Your task to perform on an android device: Search for corsair k70 on bestbuy, select the first entry, and add it to the cart. Image 0: 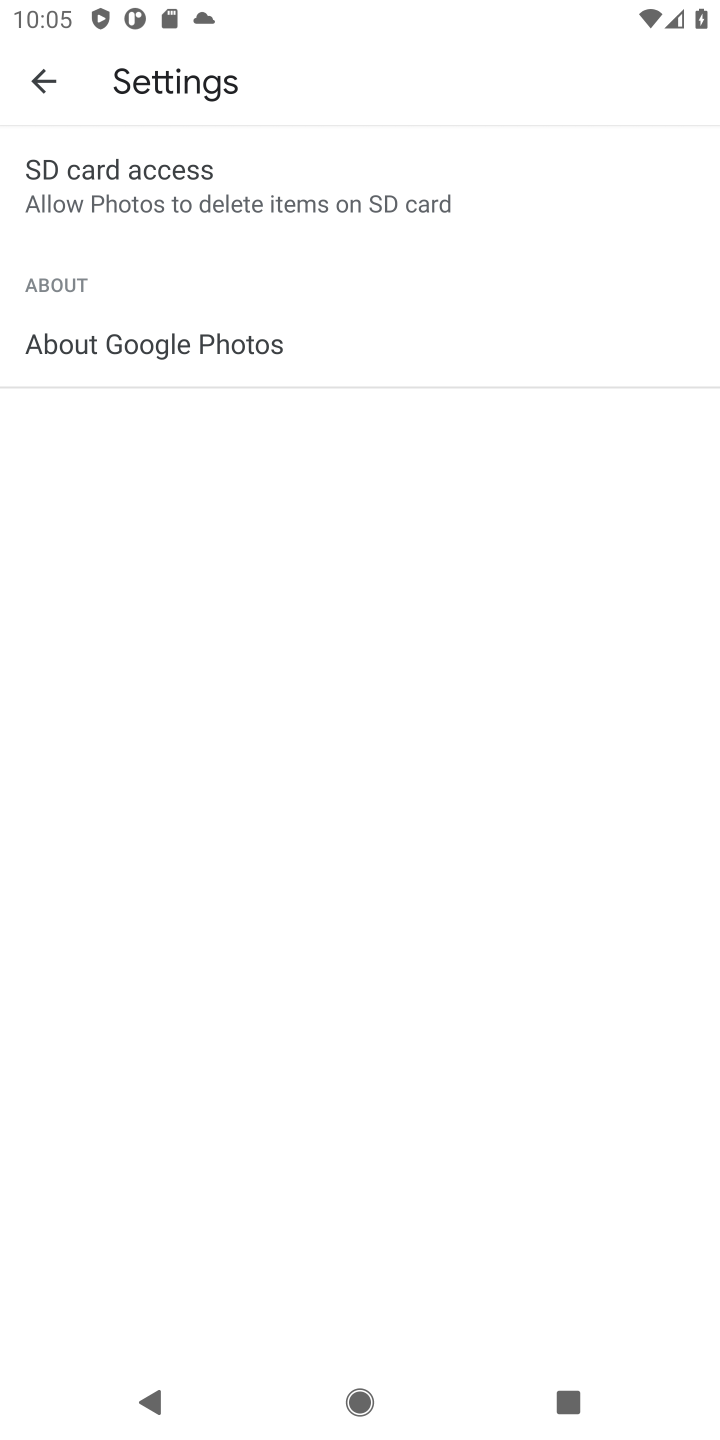
Step 0: press home button
Your task to perform on an android device: Search for corsair k70 on bestbuy, select the first entry, and add it to the cart. Image 1: 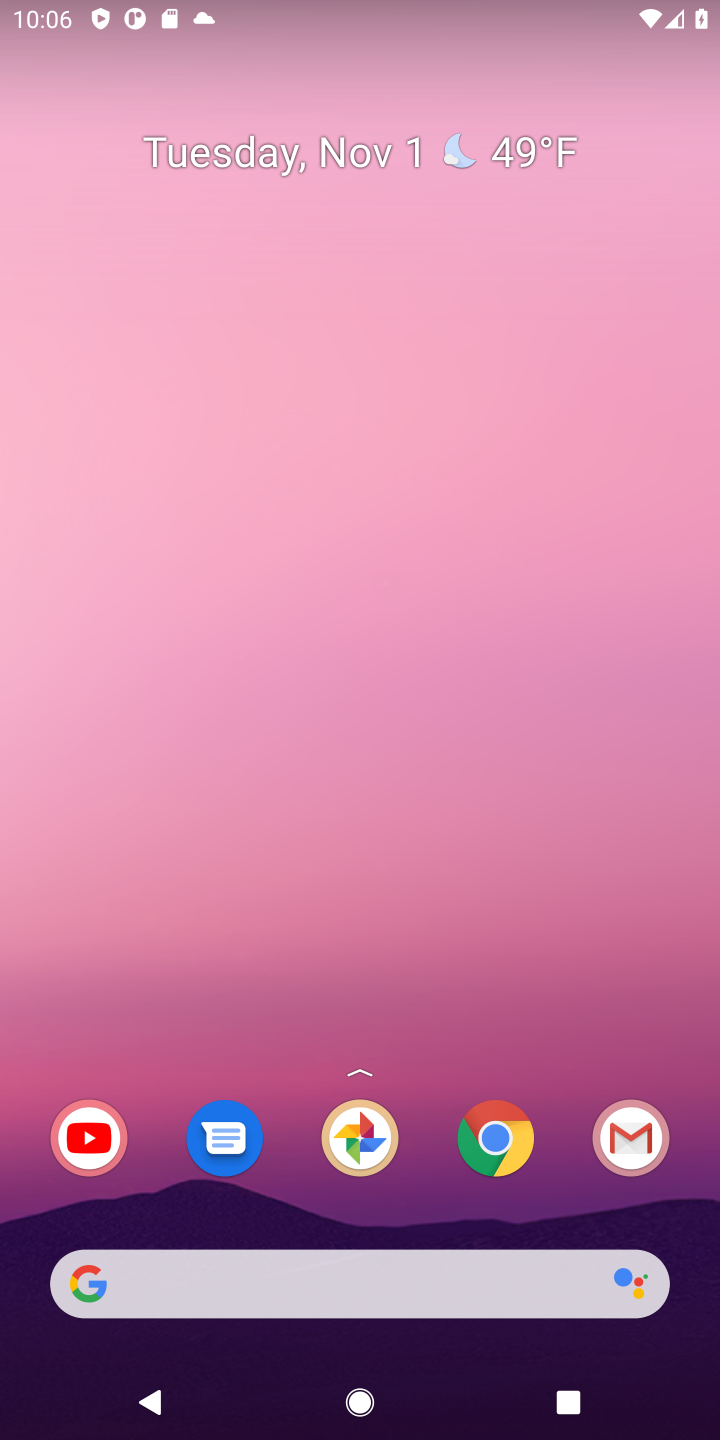
Step 1: click (497, 1137)
Your task to perform on an android device: Search for corsair k70 on bestbuy, select the first entry, and add it to the cart. Image 2: 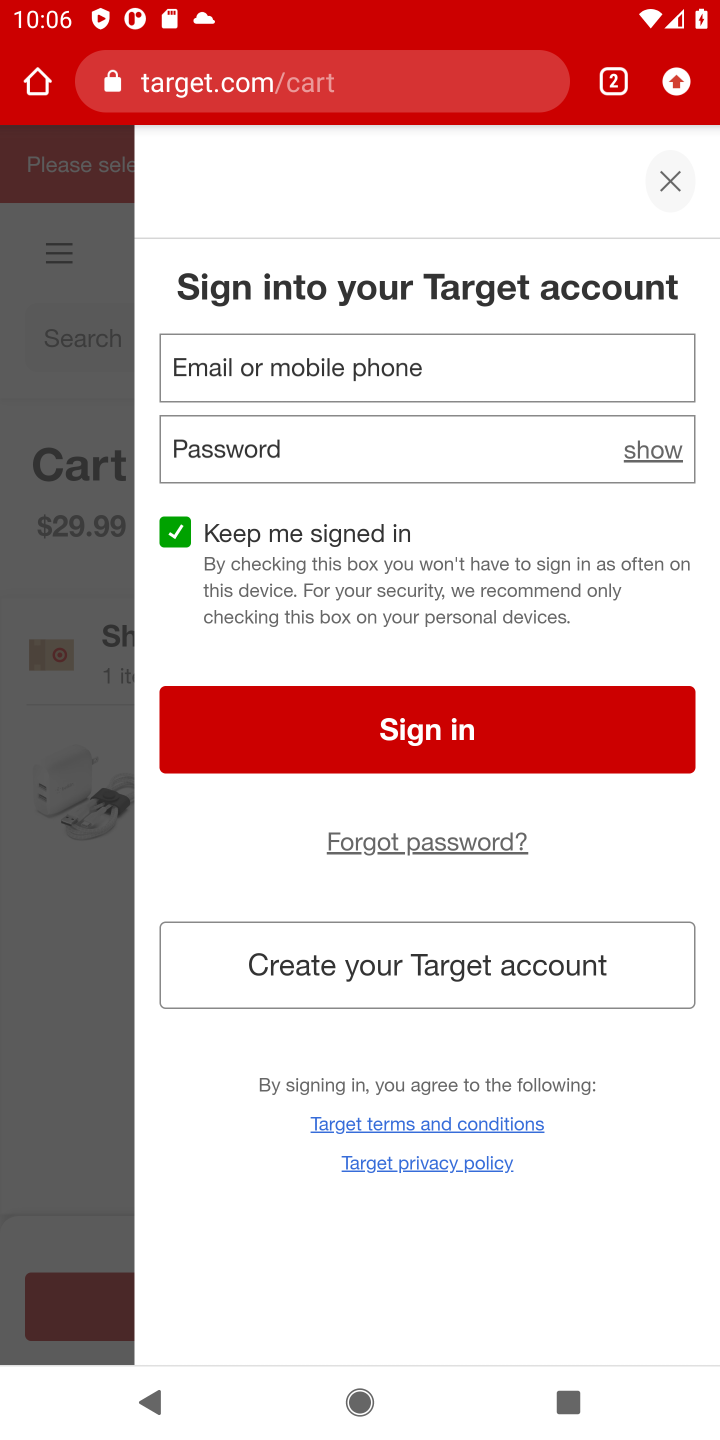
Step 2: click (349, 82)
Your task to perform on an android device: Search for corsair k70 on bestbuy, select the first entry, and add it to the cart. Image 3: 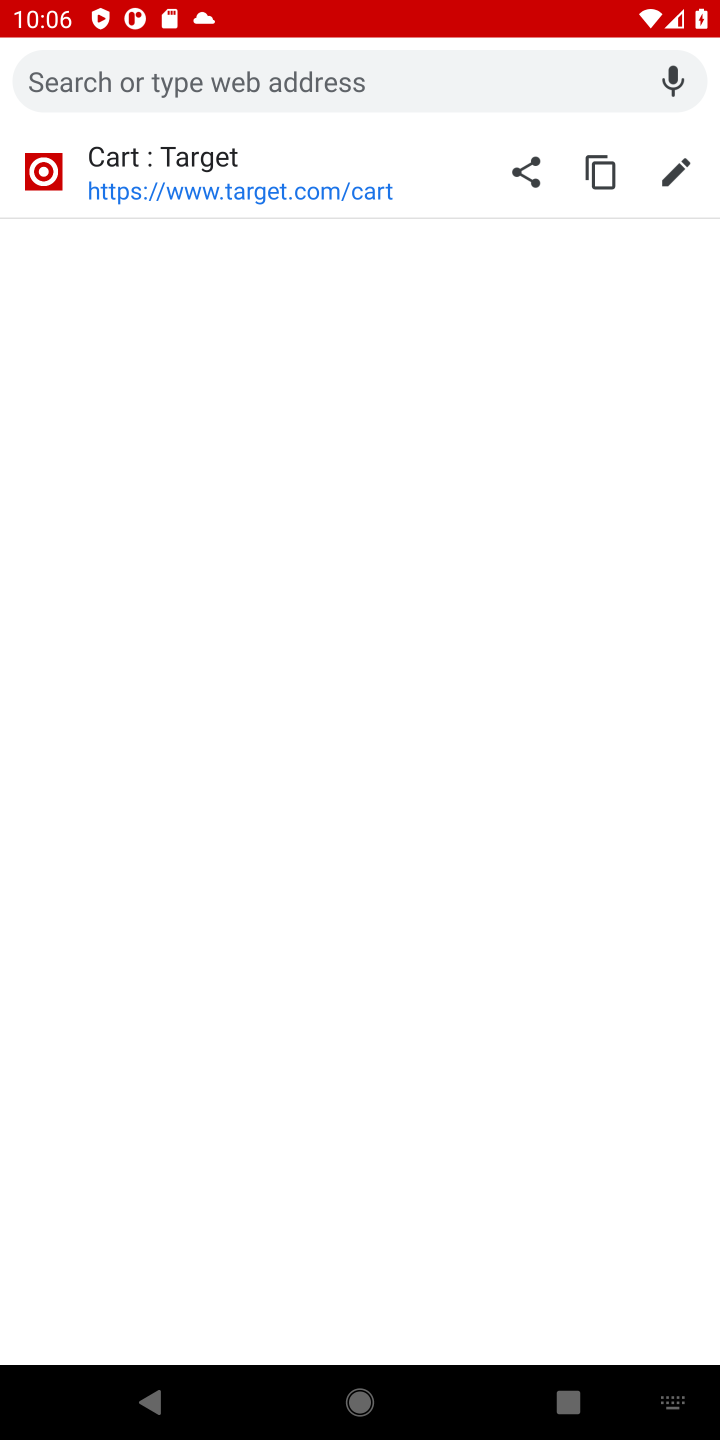
Step 3: type "bestbuy"
Your task to perform on an android device: Search for corsair k70 on bestbuy, select the first entry, and add it to the cart. Image 4: 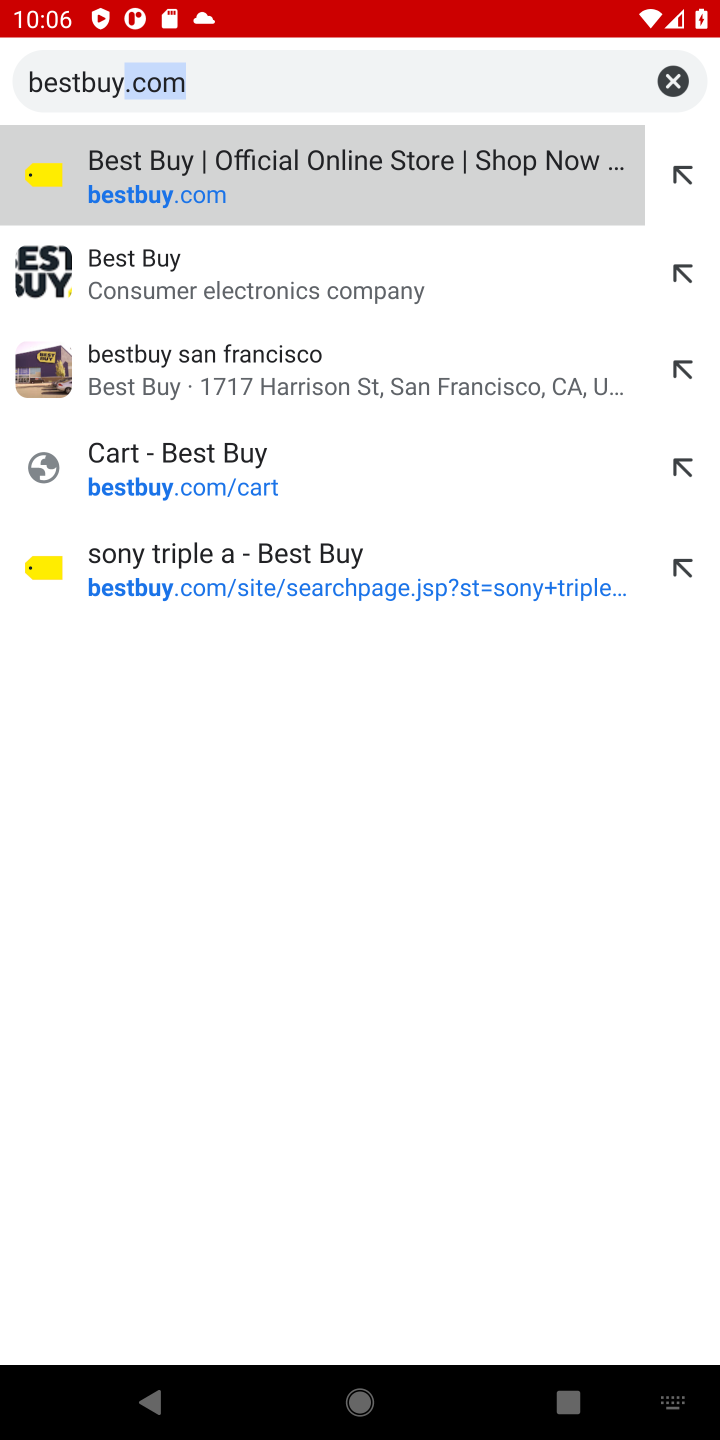
Step 4: click (360, 262)
Your task to perform on an android device: Search for corsair k70 on bestbuy, select the first entry, and add it to the cart. Image 5: 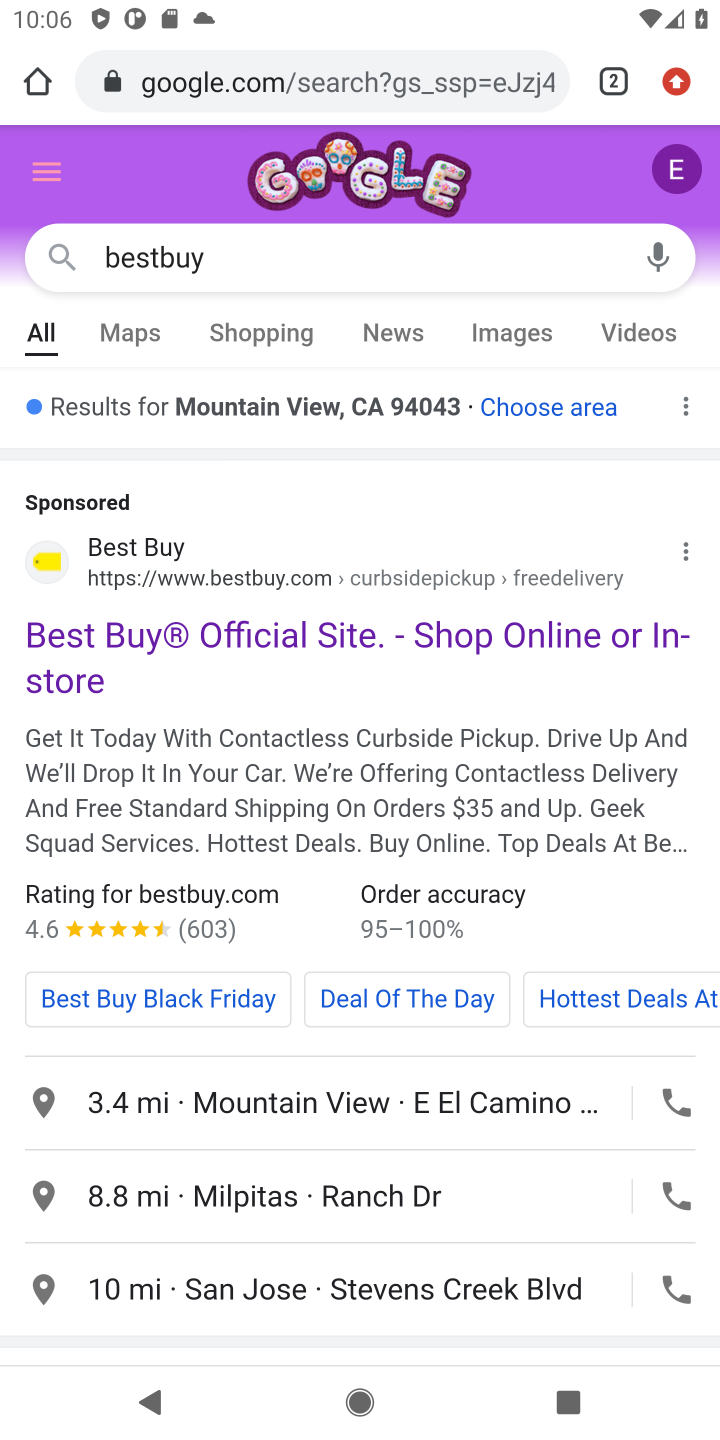
Step 5: drag from (349, 673) to (362, 282)
Your task to perform on an android device: Search for corsair k70 on bestbuy, select the first entry, and add it to the cart. Image 6: 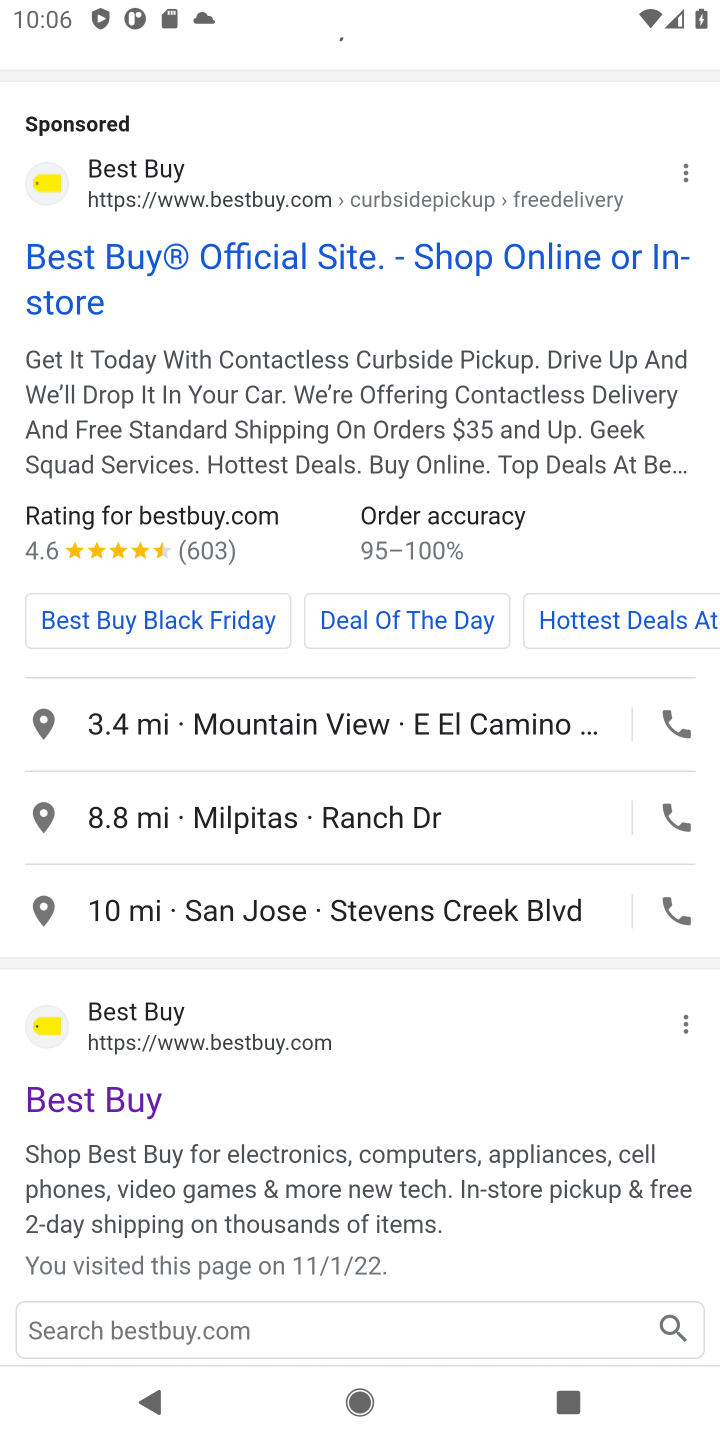
Step 6: click (237, 1098)
Your task to perform on an android device: Search for corsair k70 on bestbuy, select the first entry, and add it to the cart. Image 7: 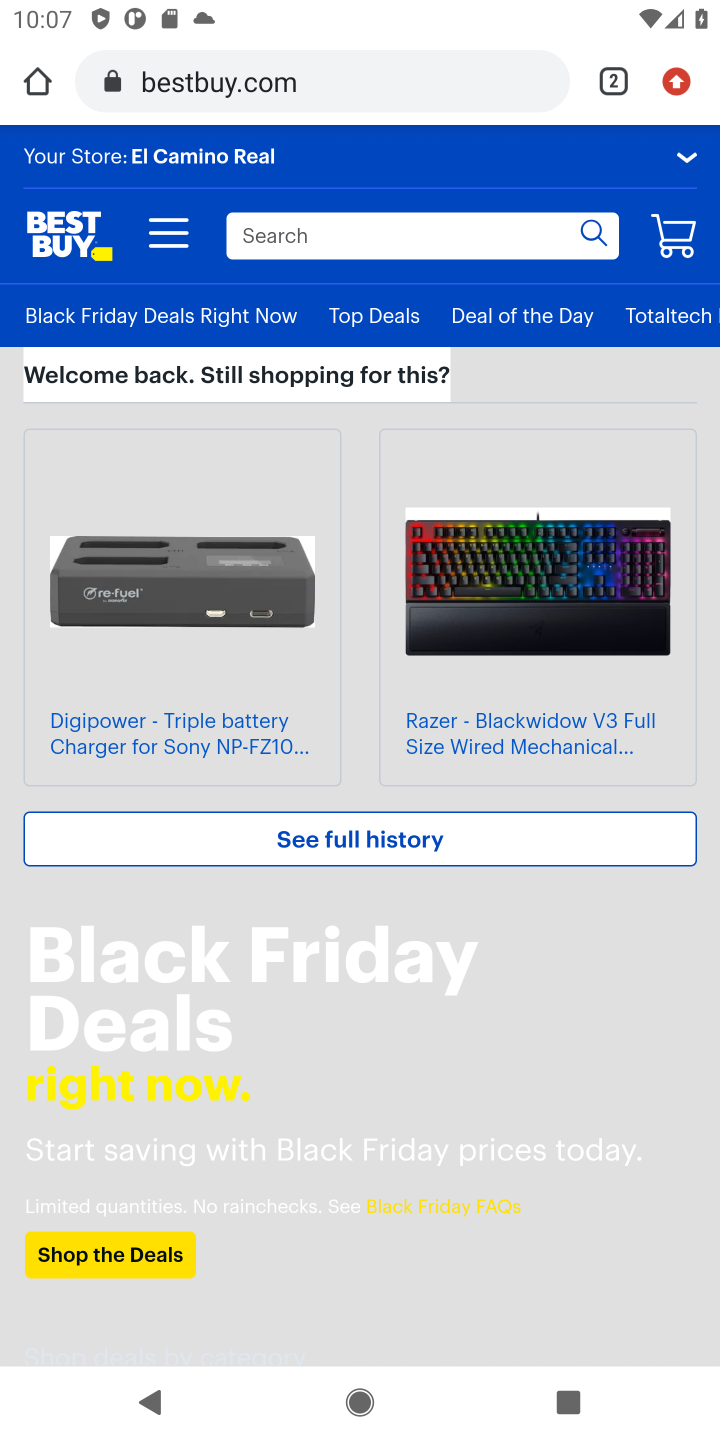
Step 7: click (426, 233)
Your task to perform on an android device: Search for corsair k70 on bestbuy, select the first entry, and add it to the cart. Image 8: 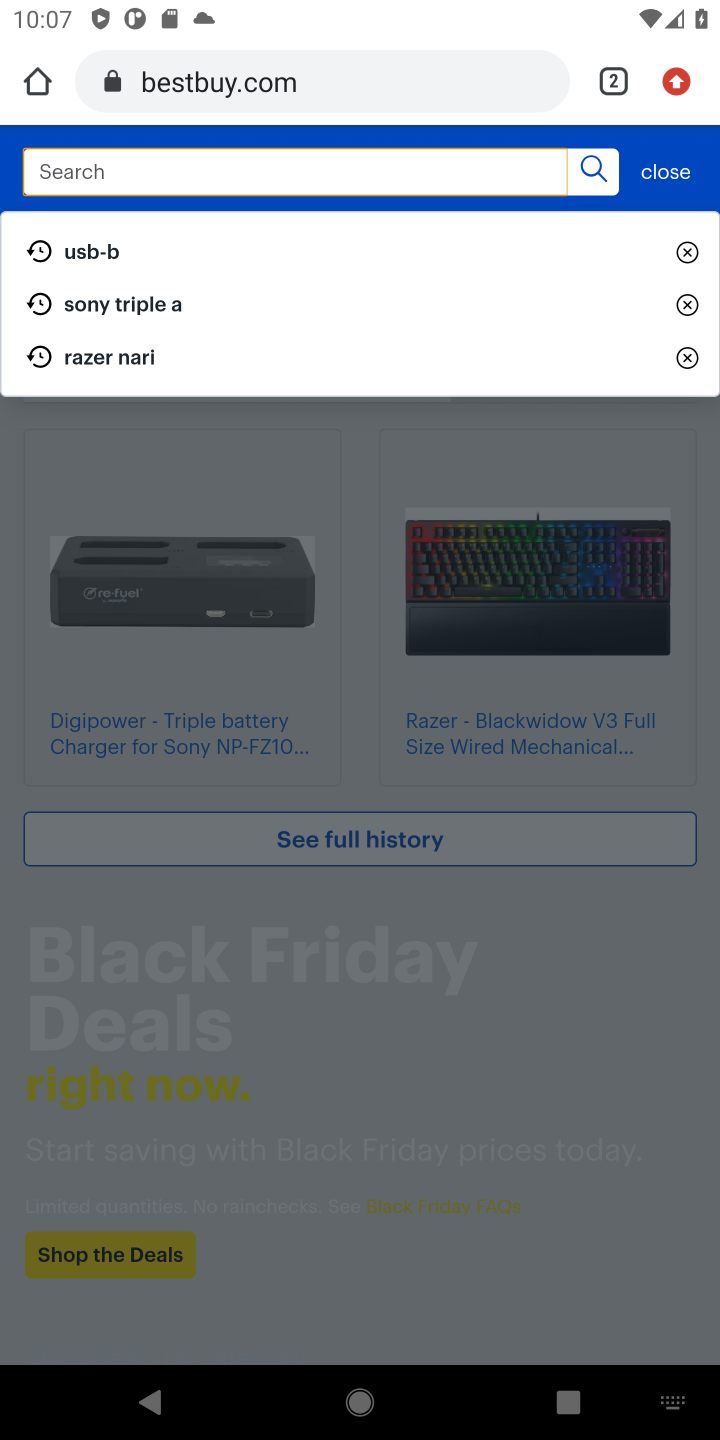
Step 8: type "corsair k70"
Your task to perform on an android device: Search for corsair k70 on bestbuy, select the first entry, and add it to the cart. Image 9: 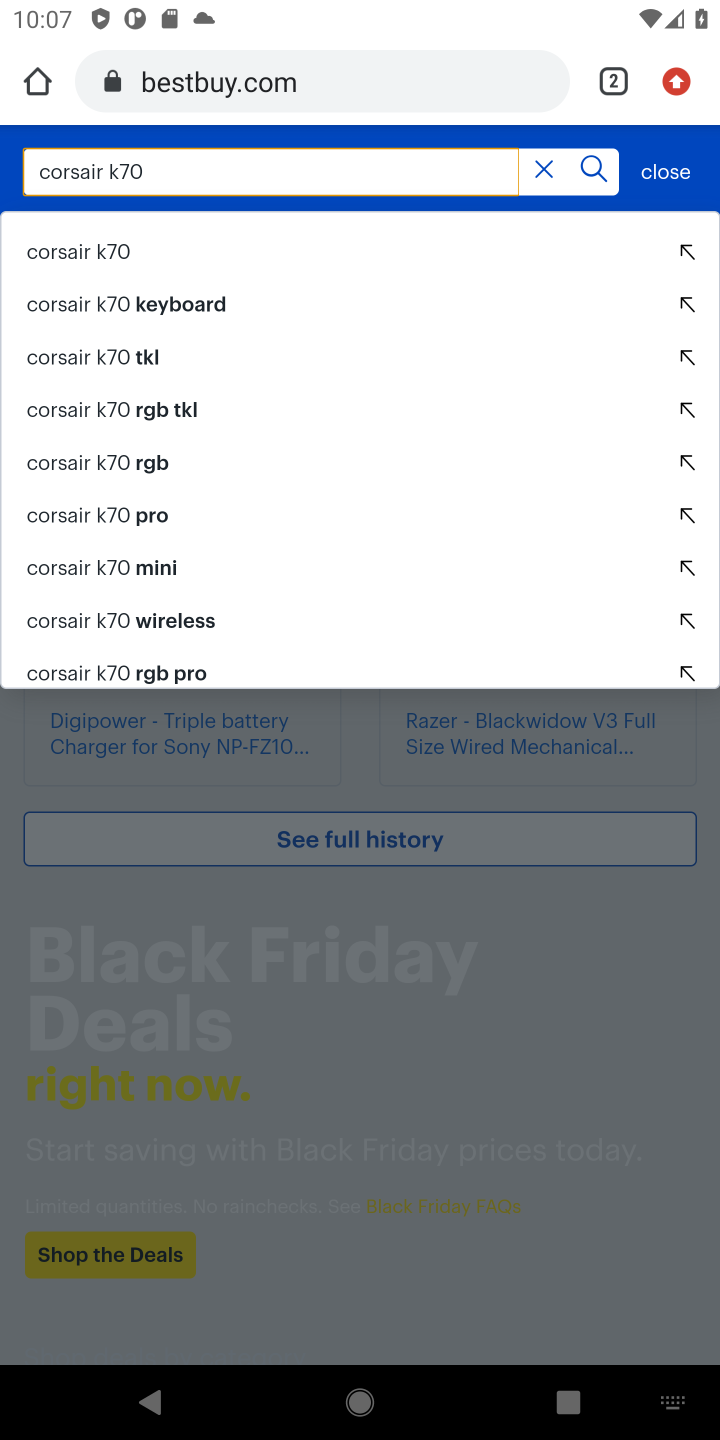
Step 9: click (93, 253)
Your task to perform on an android device: Search for corsair k70 on bestbuy, select the first entry, and add it to the cart. Image 10: 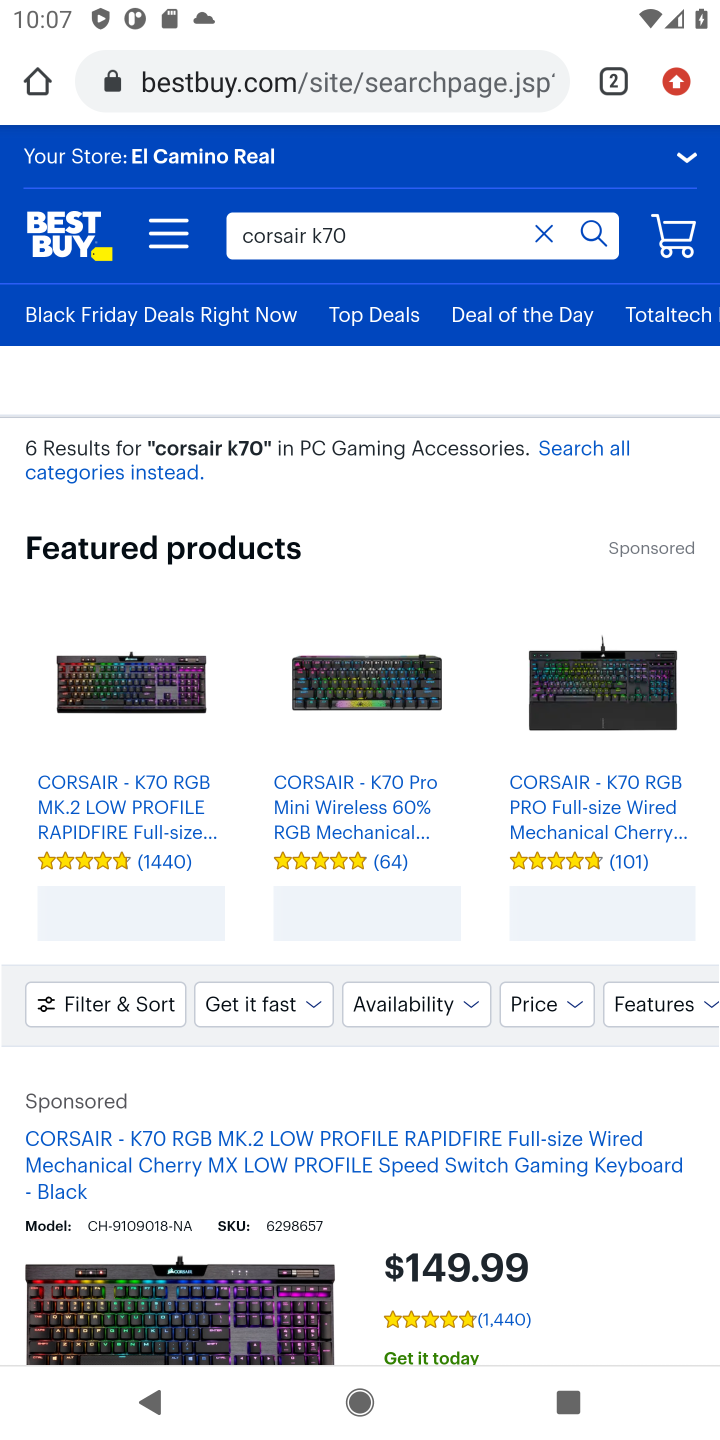
Step 10: click (527, 1157)
Your task to perform on an android device: Search for corsair k70 on bestbuy, select the first entry, and add it to the cart. Image 11: 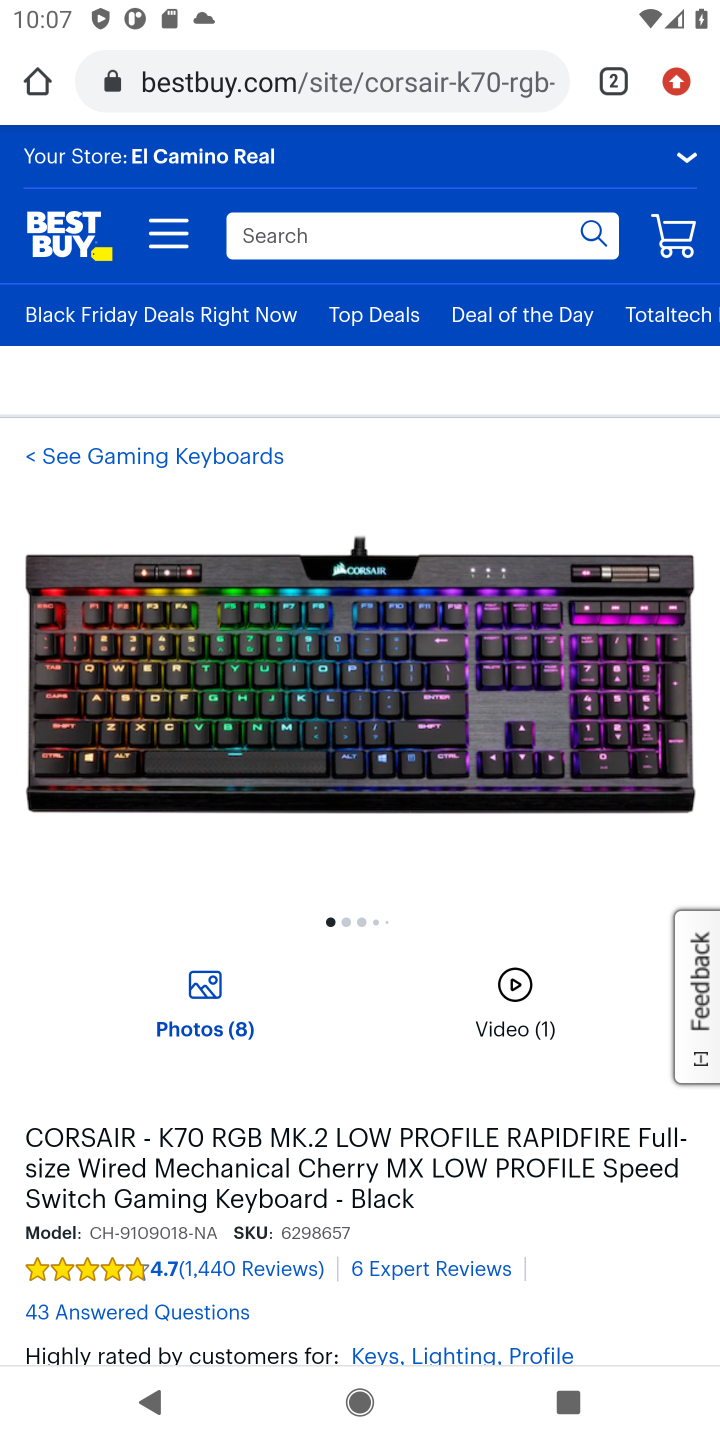
Step 11: drag from (468, 1205) to (419, 331)
Your task to perform on an android device: Search for corsair k70 on bestbuy, select the first entry, and add it to the cart. Image 12: 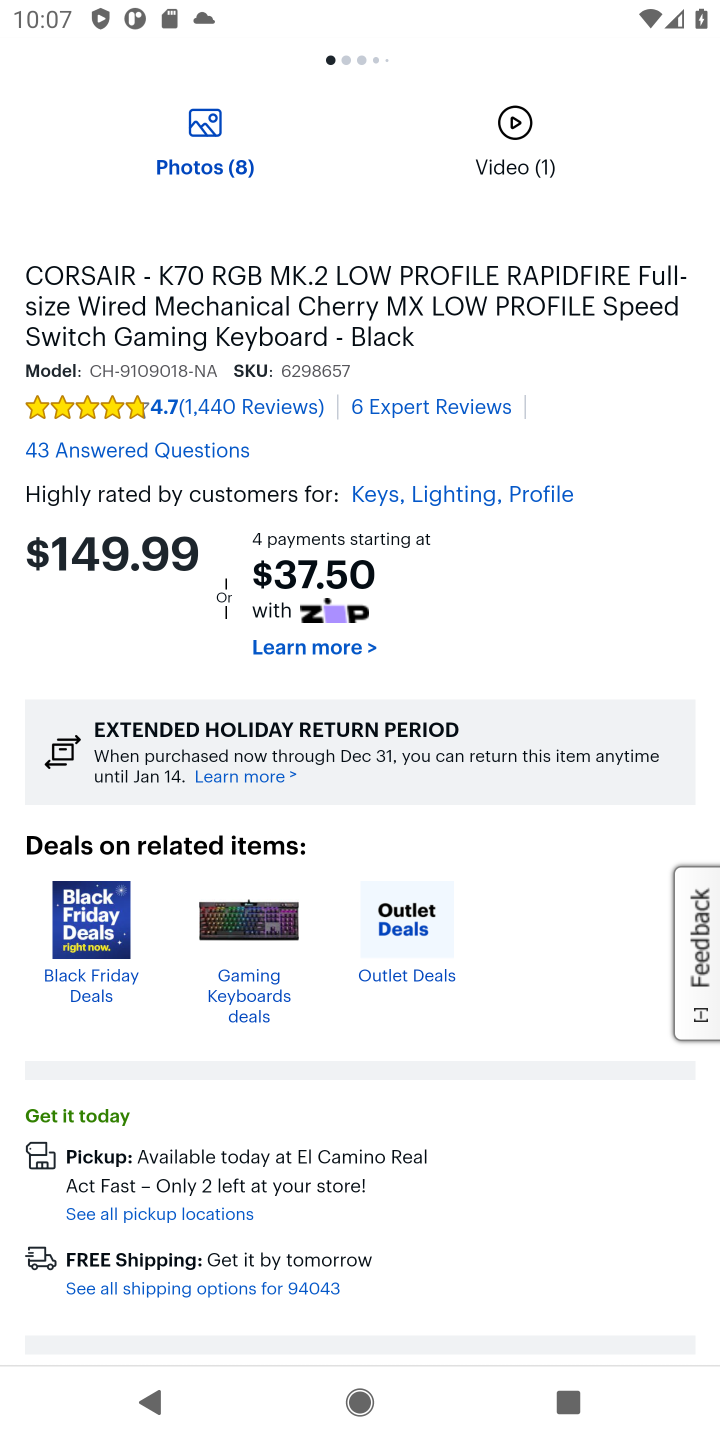
Step 12: drag from (485, 1178) to (505, 505)
Your task to perform on an android device: Search for corsair k70 on bestbuy, select the first entry, and add it to the cart. Image 13: 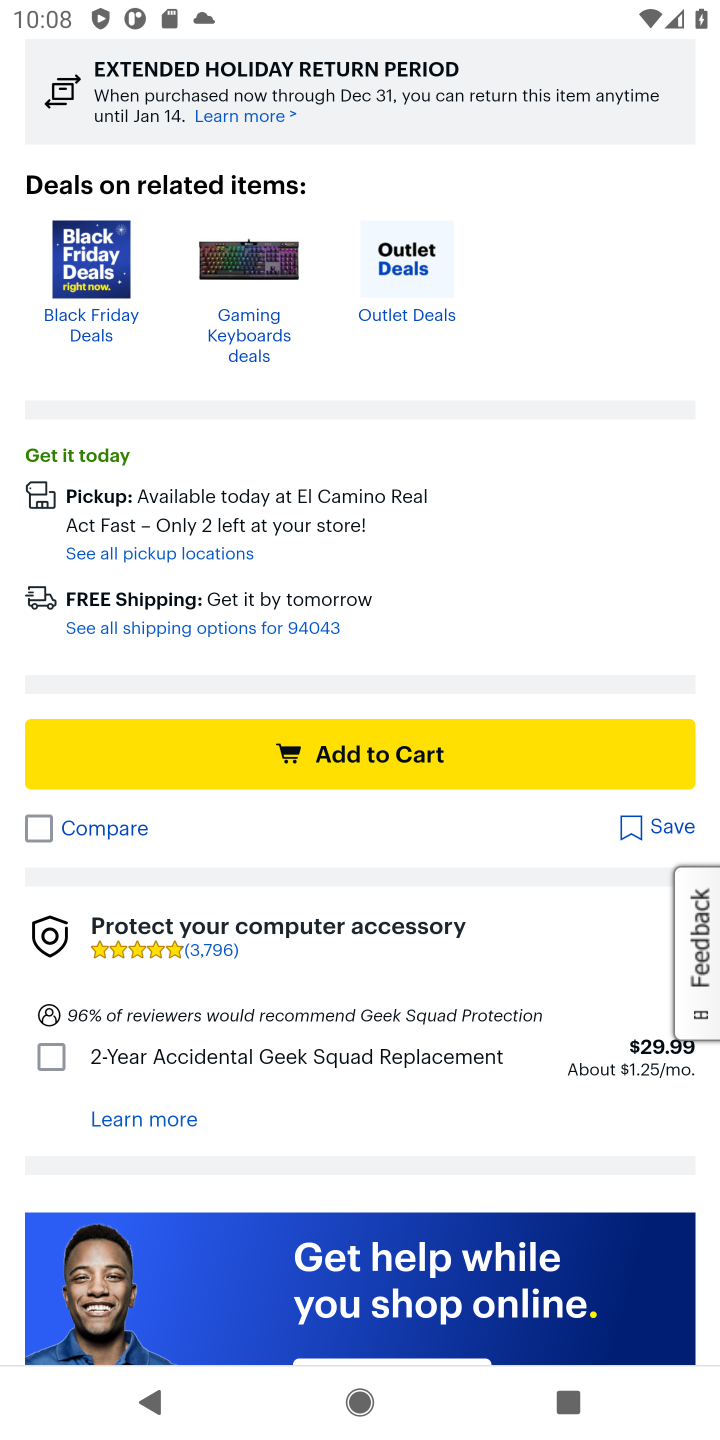
Step 13: click (367, 754)
Your task to perform on an android device: Search for corsair k70 on bestbuy, select the first entry, and add it to the cart. Image 14: 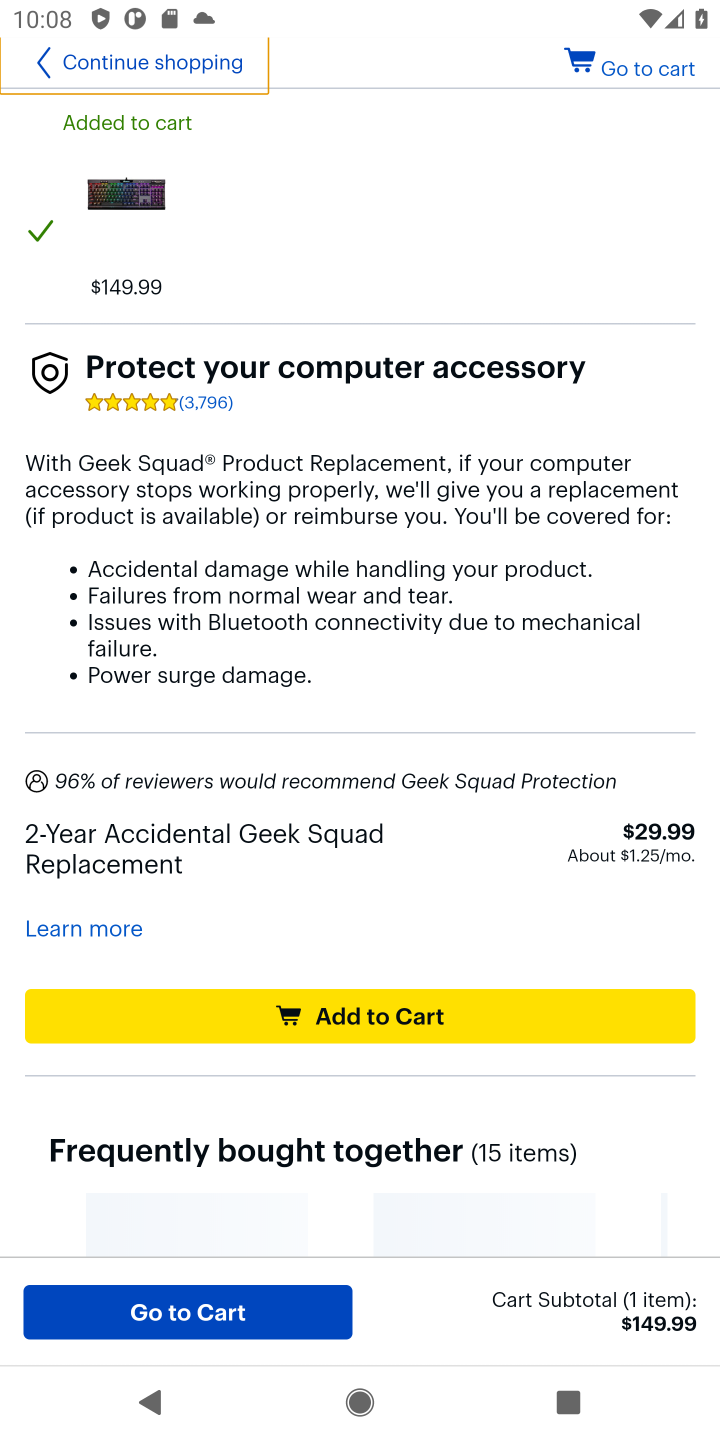
Step 14: click (213, 1317)
Your task to perform on an android device: Search for corsair k70 on bestbuy, select the first entry, and add it to the cart. Image 15: 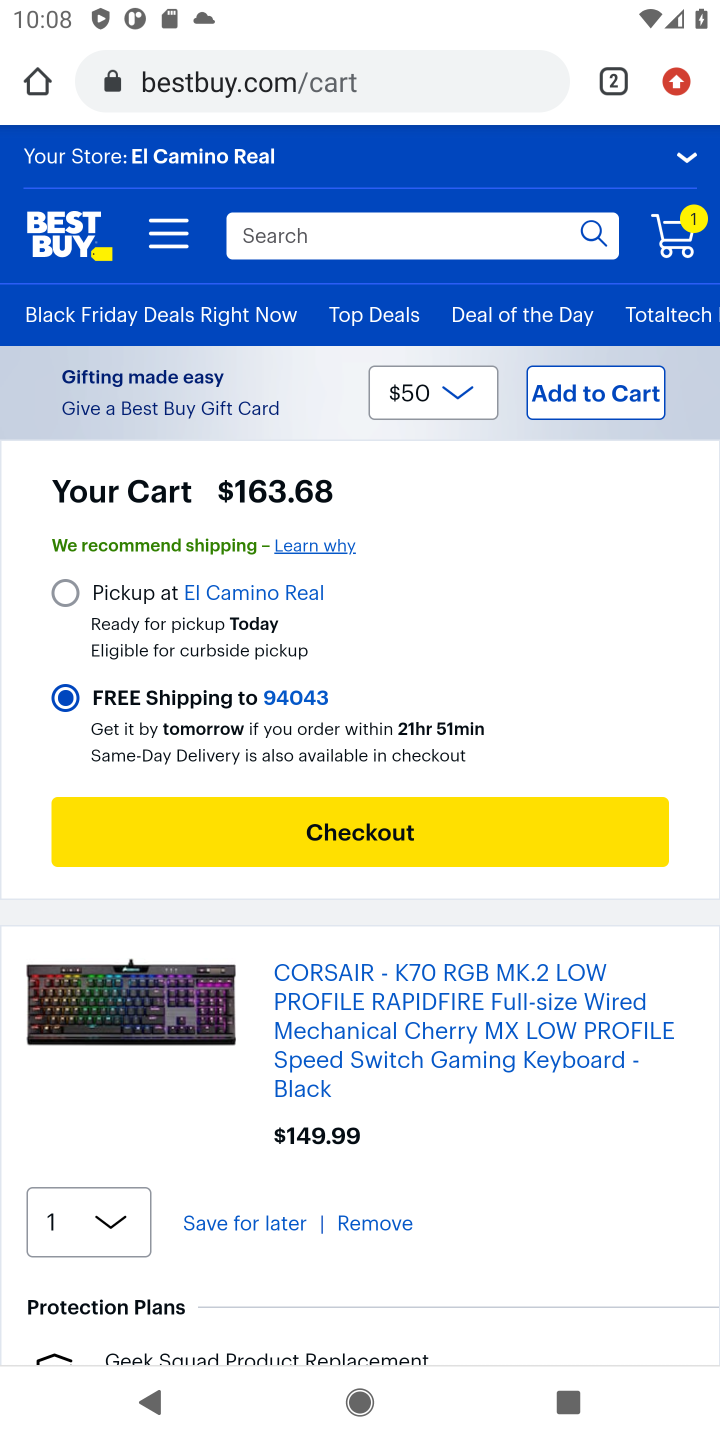
Step 15: task complete